Your task to perform on an android device: set the timer Image 0: 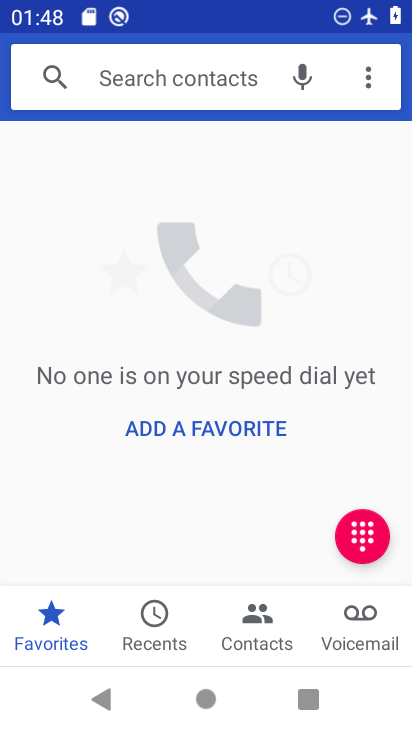
Step 0: press home button
Your task to perform on an android device: set the timer Image 1: 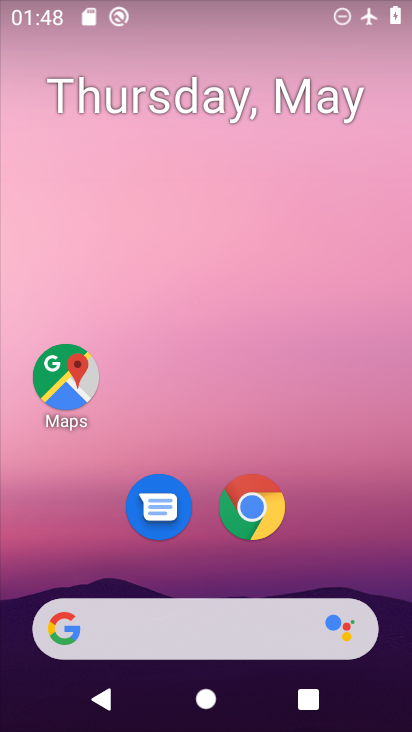
Step 1: drag from (378, 532) to (364, 94)
Your task to perform on an android device: set the timer Image 2: 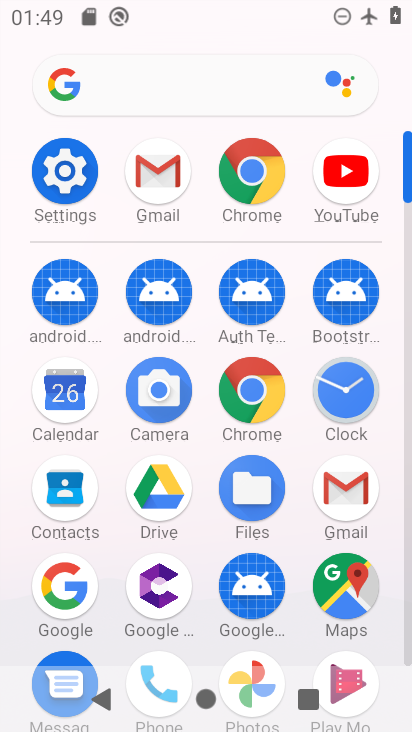
Step 2: click (363, 385)
Your task to perform on an android device: set the timer Image 3: 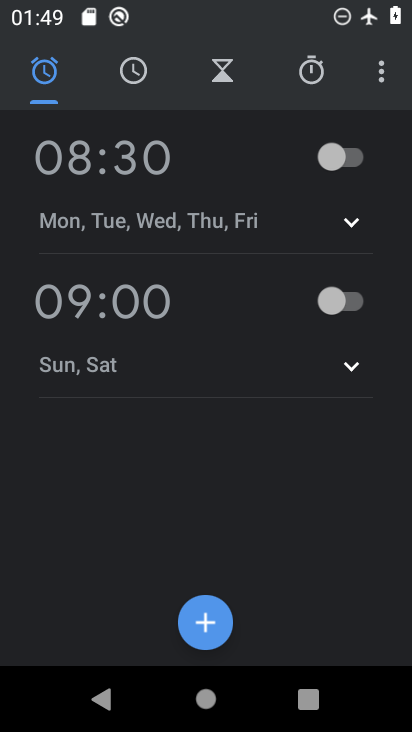
Step 3: click (227, 102)
Your task to perform on an android device: set the timer Image 4: 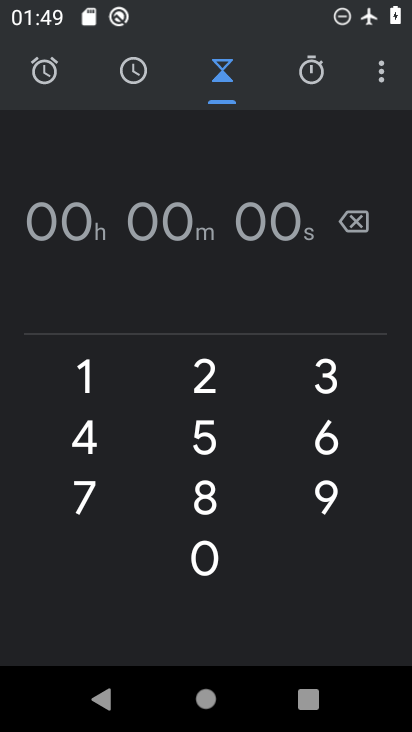
Step 4: task complete